Your task to perform on an android device: Turn off the flashlight Image 0: 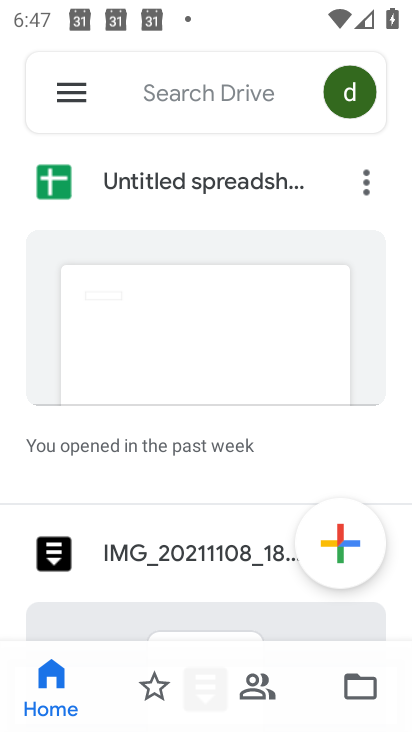
Step 0: press home button
Your task to perform on an android device: Turn off the flashlight Image 1: 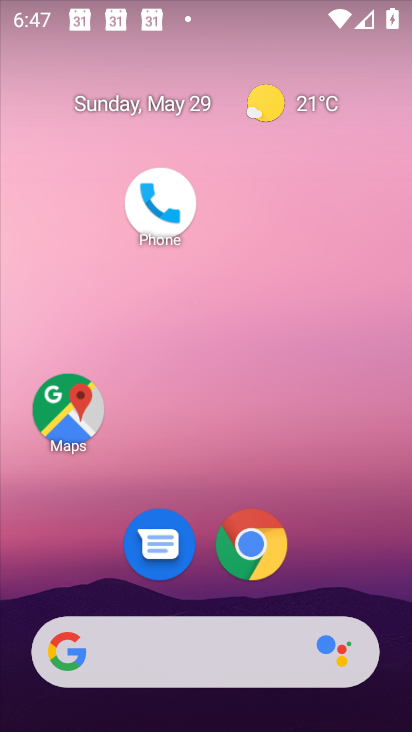
Step 1: drag from (316, 520) to (301, 166)
Your task to perform on an android device: Turn off the flashlight Image 2: 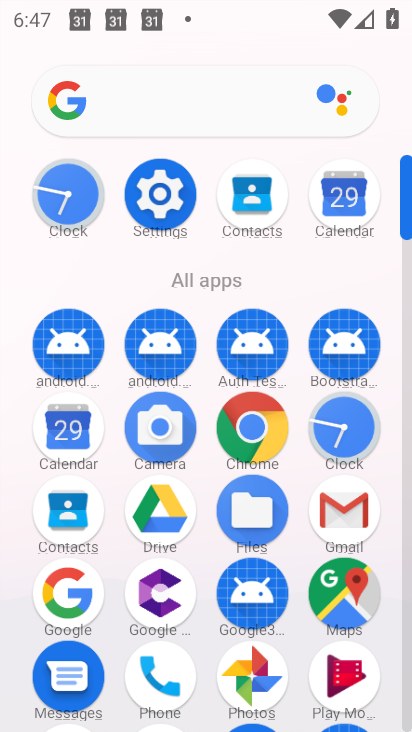
Step 2: click (160, 191)
Your task to perform on an android device: Turn off the flashlight Image 3: 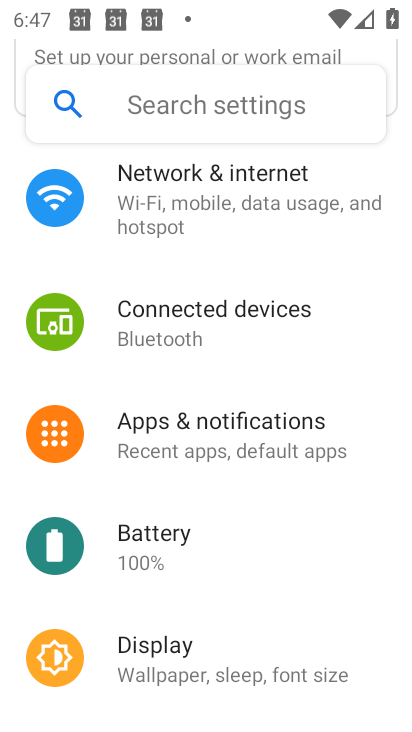
Step 3: click (168, 642)
Your task to perform on an android device: Turn off the flashlight Image 4: 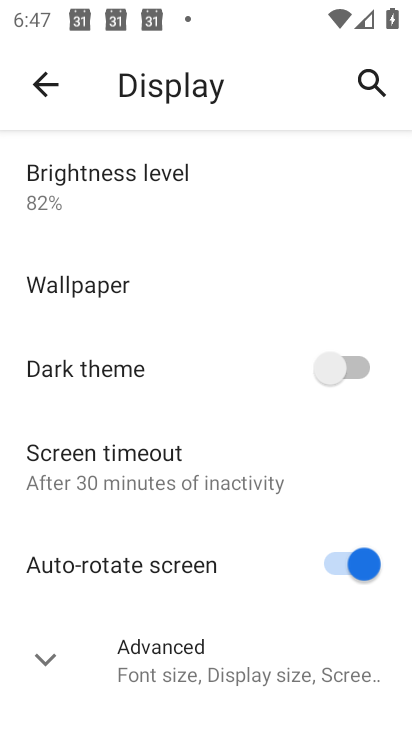
Step 4: drag from (204, 526) to (193, 216)
Your task to perform on an android device: Turn off the flashlight Image 5: 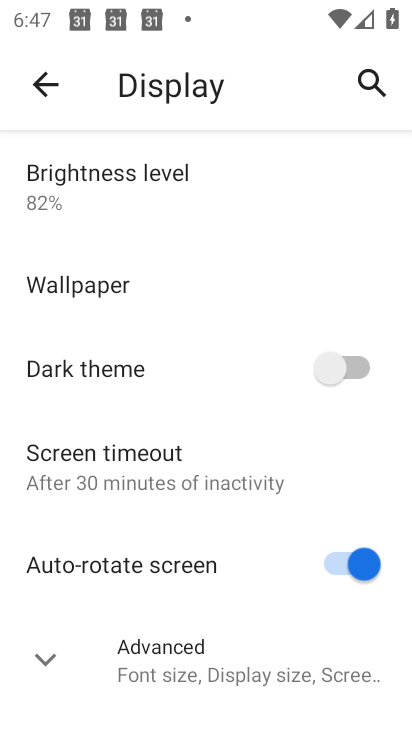
Step 5: click (42, 79)
Your task to perform on an android device: Turn off the flashlight Image 6: 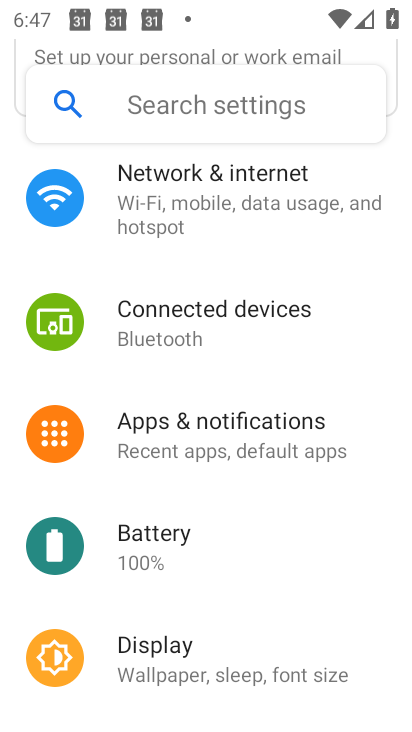
Step 6: click (174, 311)
Your task to perform on an android device: Turn off the flashlight Image 7: 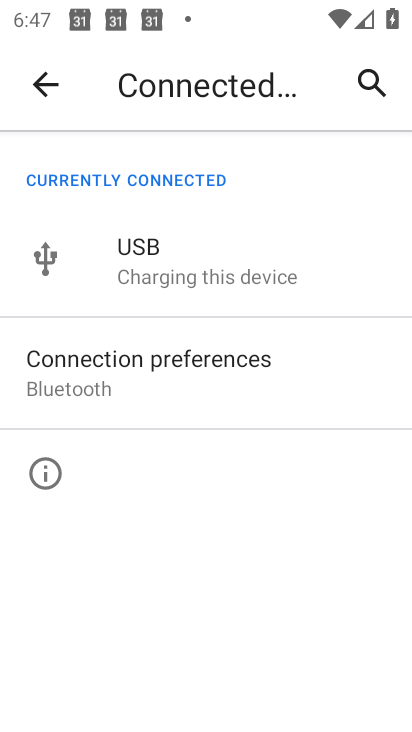
Step 7: click (41, 93)
Your task to perform on an android device: Turn off the flashlight Image 8: 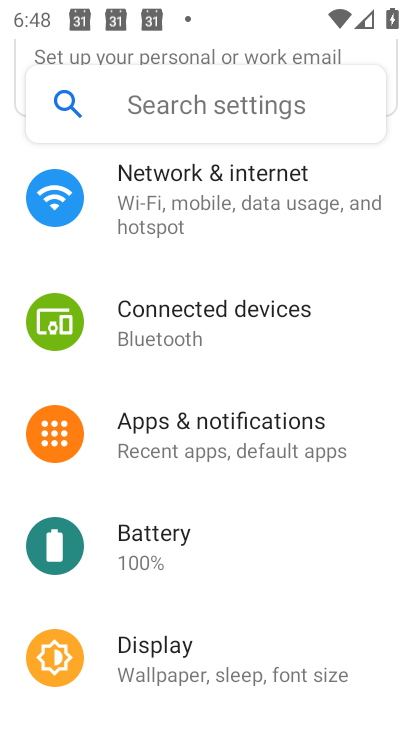
Step 8: click (158, 169)
Your task to perform on an android device: Turn off the flashlight Image 9: 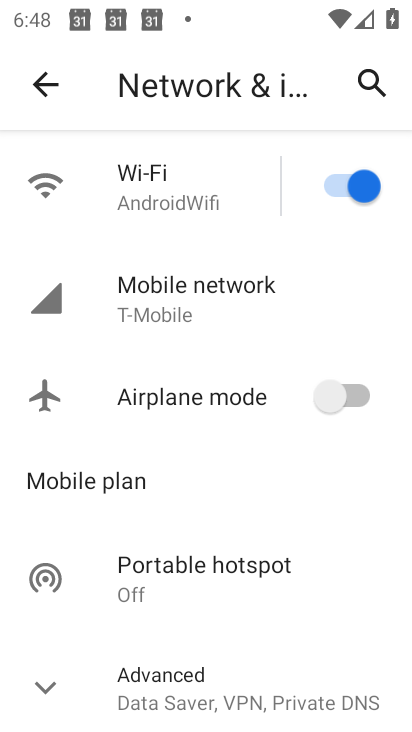
Step 9: task complete